Your task to perform on an android device: toggle notification dots Image 0: 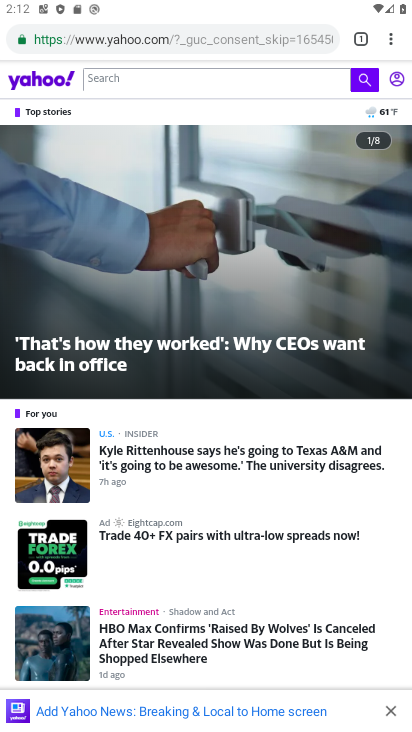
Step 0: press home button
Your task to perform on an android device: toggle notification dots Image 1: 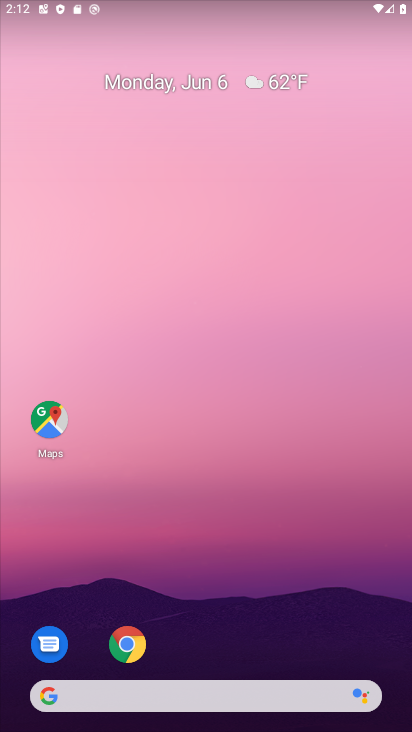
Step 1: drag from (138, 584) to (184, 117)
Your task to perform on an android device: toggle notification dots Image 2: 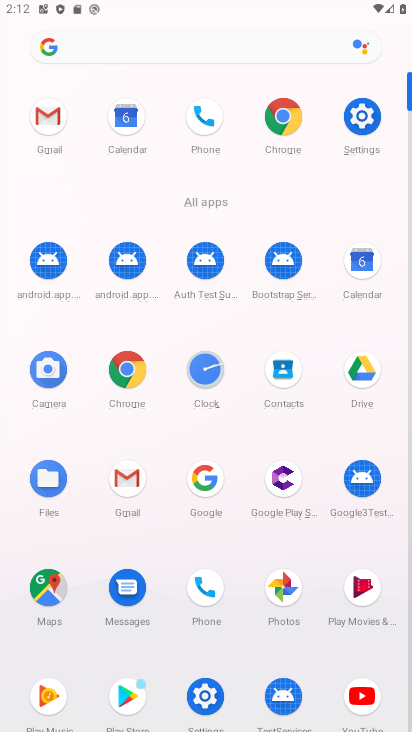
Step 2: click (367, 128)
Your task to perform on an android device: toggle notification dots Image 3: 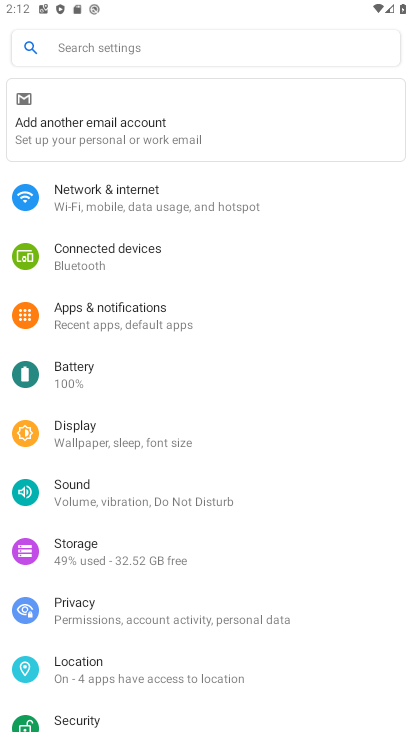
Step 3: click (139, 322)
Your task to perform on an android device: toggle notification dots Image 4: 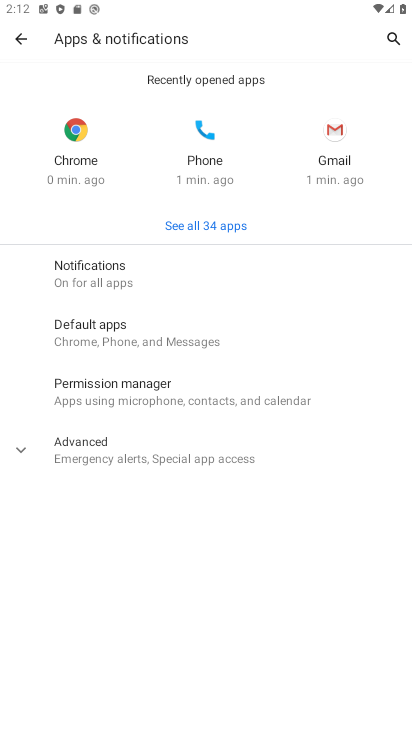
Step 4: click (90, 289)
Your task to perform on an android device: toggle notification dots Image 5: 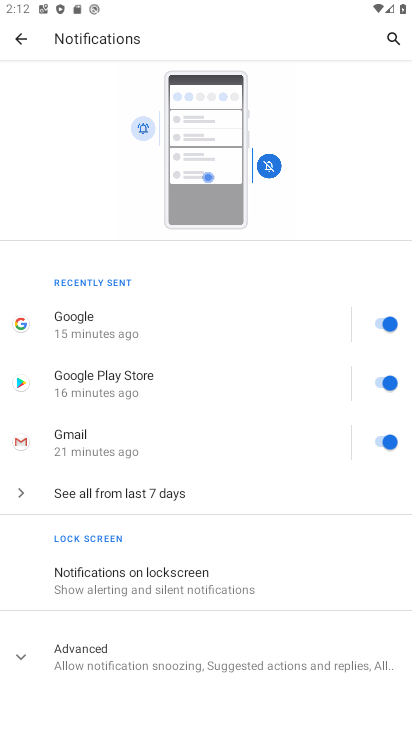
Step 5: click (129, 660)
Your task to perform on an android device: toggle notification dots Image 6: 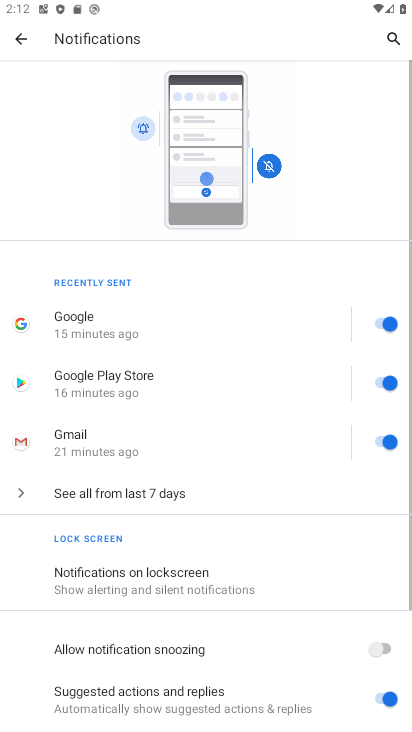
Step 6: drag from (129, 660) to (147, 286)
Your task to perform on an android device: toggle notification dots Image 7: 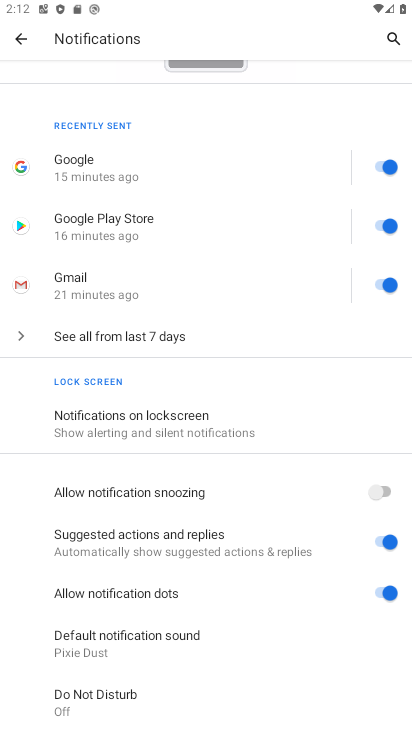
Step 7: click (385, 585)
Your task to perform on an android device: toggle notification dots Image 8: 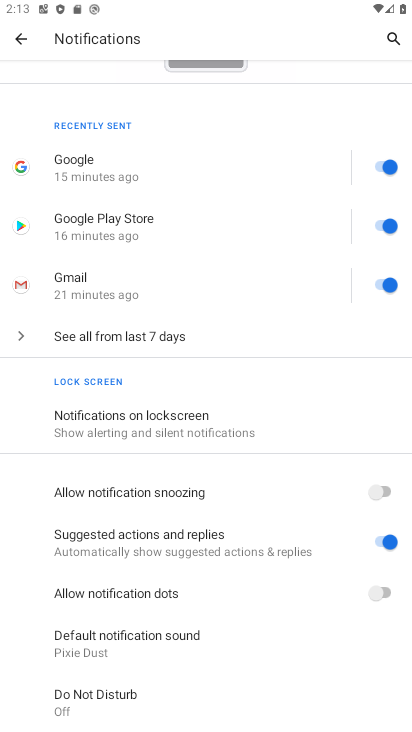
Step 8: task complete